Your task to perform on an android device: toggle airplane mode Image 0: 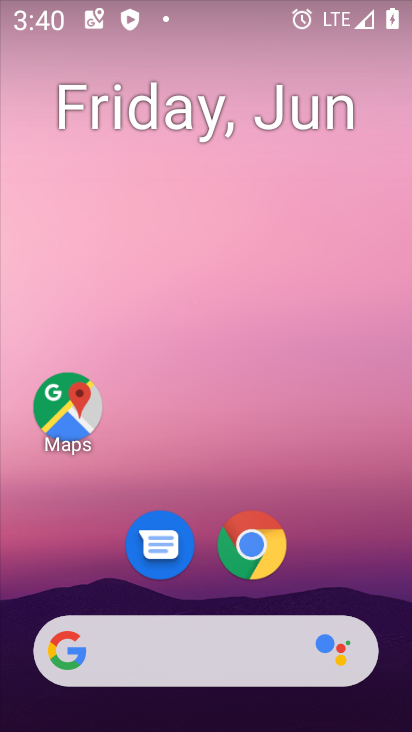
Step 0: drag from (303, 590) to (365, 2)
Your task to perform on an android device: toggle airplane mode Image 1: 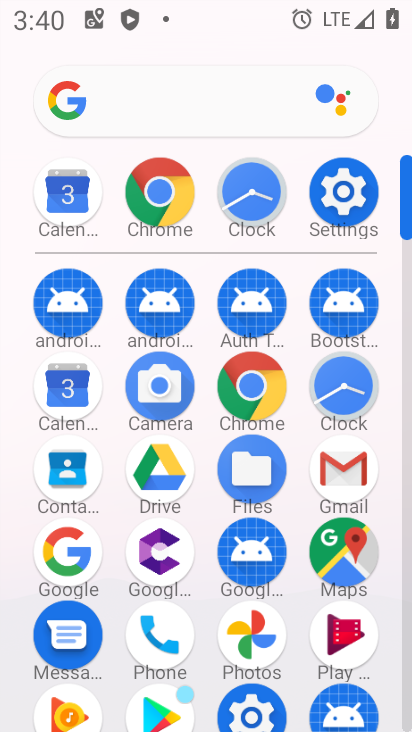
Step 1: click (348, 195)
Your task to perform on an android device: toggle airplane mode Image 2: 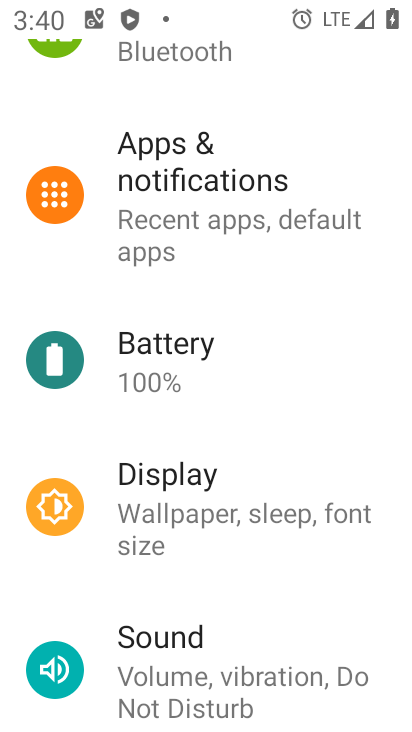
Step 2: drag from (245, 190) to (232, 594)
Your task to perform on an android device: toggle airplane mode Image 3: 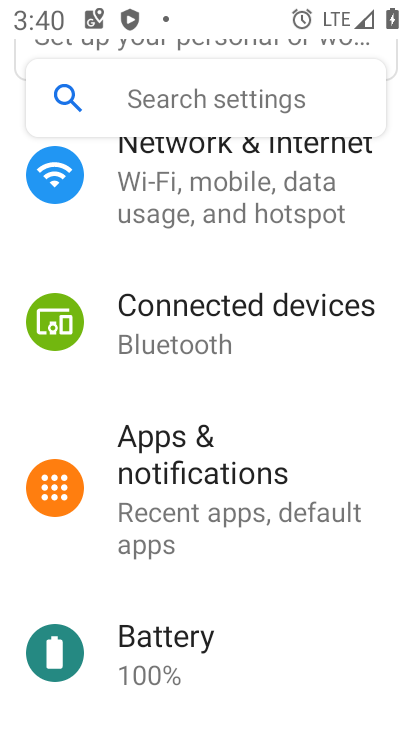
Step 3: click (206, 191)
Your task to perform on an android device: toggle airplane mode Image 4: 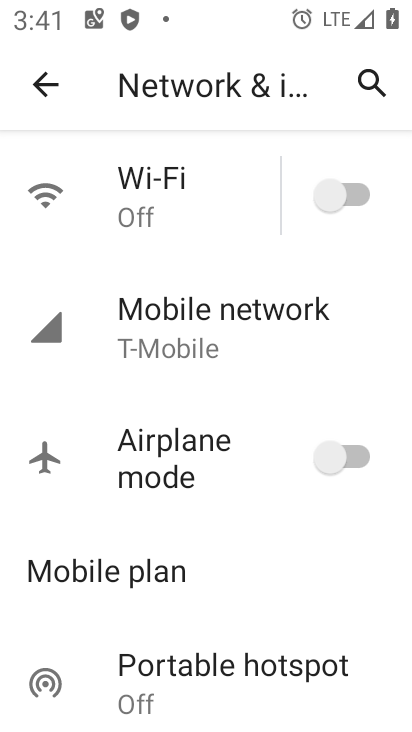
Step 4: click (349, 450)
Your task to perform on an android device: toggle airplane mode Image 5: 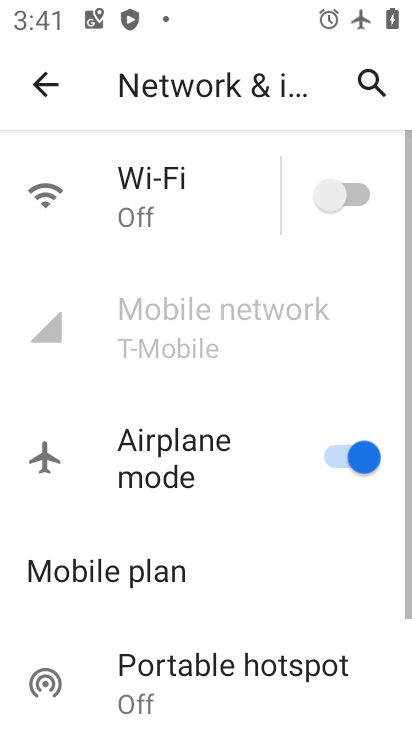
Step 5: task complete